Your task to perform on an android device: What's the weather today? Image 0: 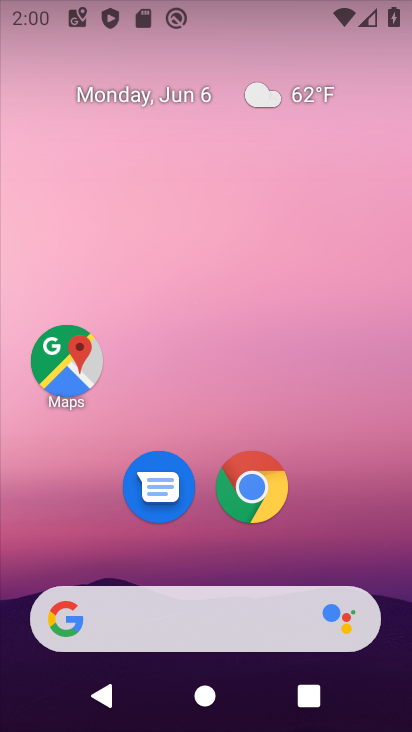
Step 0: click (322, 104)
Your task to perform on an android device: What's the weather today? Image 1: 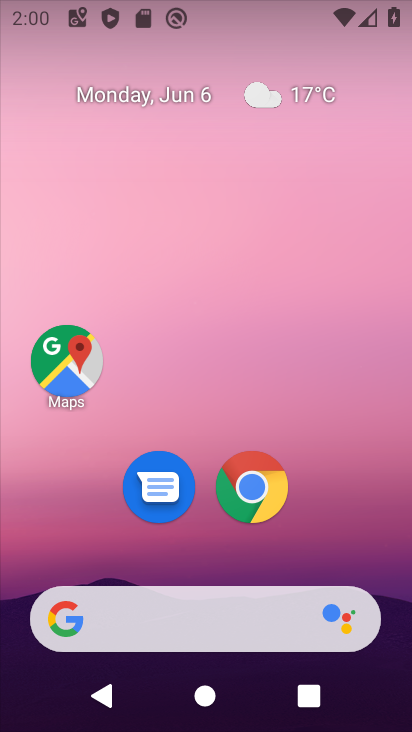
Step 1: click (316, 102)
Your task to perform on an android device: What's the weather today? Image 2: 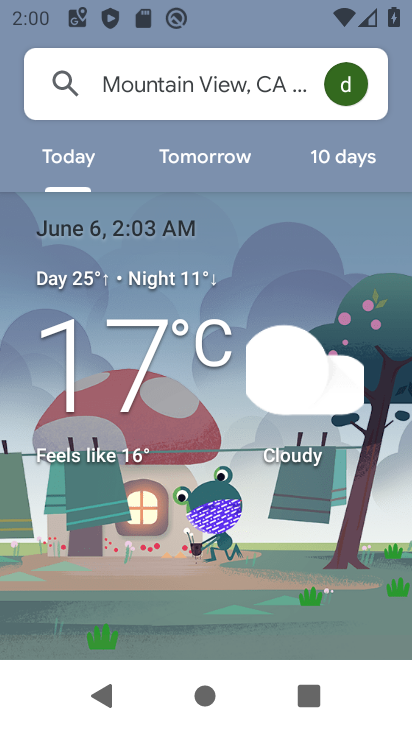
Step 2: task complete